Your task to perform on an android device: change the clock display to analog Image 0: 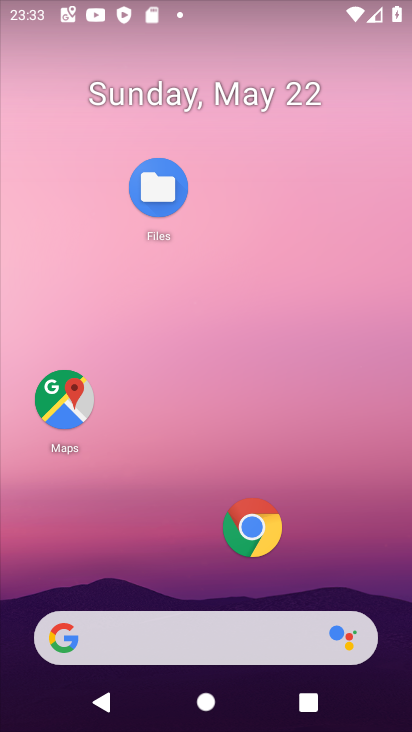
Step 0: drag from (168, 514) to (209, 131)
Your task to perform on an android device: change the clock display to analog Image 1: 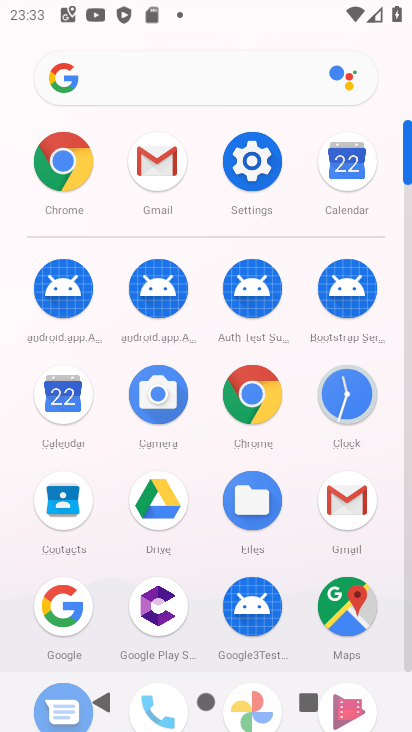
Step 1: click (346, 390)
Your task to perform on an android device: change the clock display to analog Image 2: 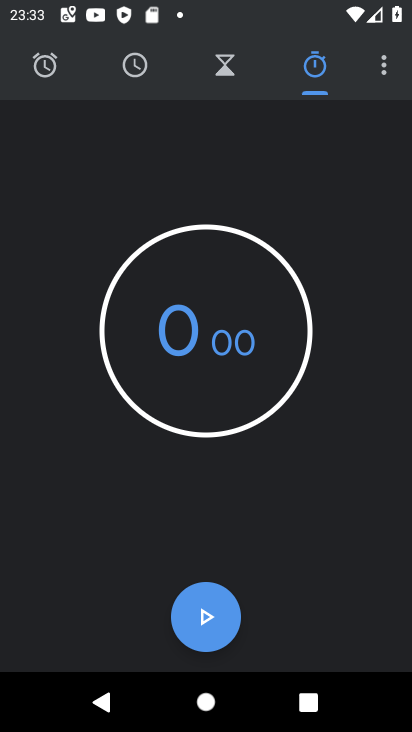
Step 2: click (389, 62)
Your task to perform on an android device: change the clock display to analog Image 3: 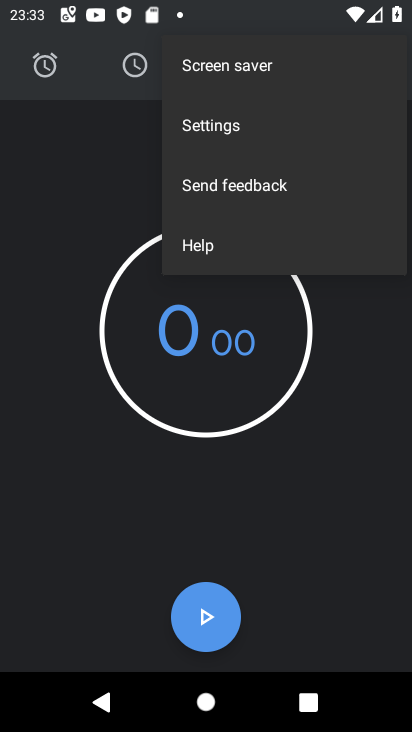
Step 3: click (243, 119)
Your task to perform on an android device: change the clock display to analog Image 4: 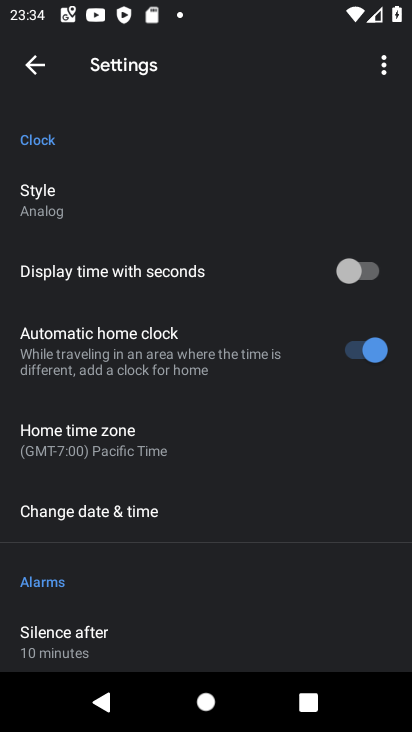
Step 4: click (45, 216)
Your task to perform on an android device: change the clock display to analog Image 5: 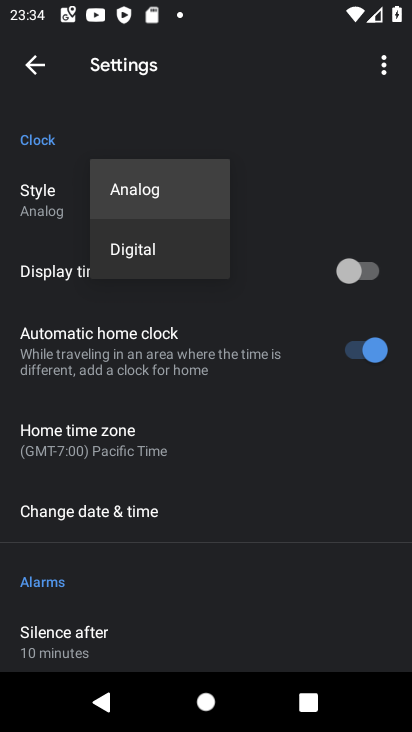
Step 5: click (135, 195)
Your task to perform on an android device: change the clock display to analog Image 6: 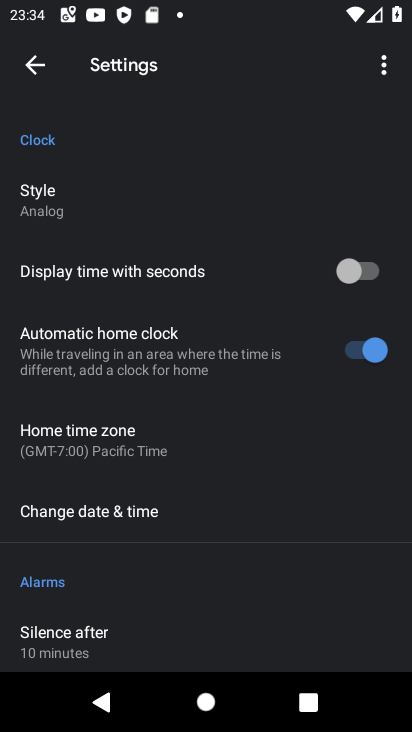
Step 6: task complete